Your task to perform on an android device: change the clock display to show seconds Image 0: 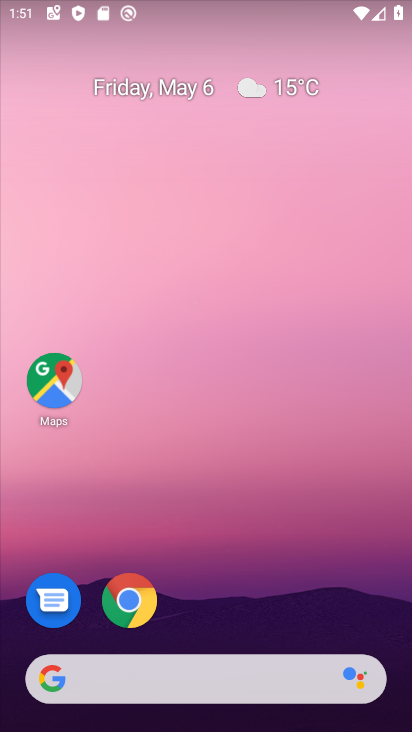
Step 0: drag from (342, 620) to (334, 149)
Your task to perform on an android device: change the clock display to show seconds Image 1: 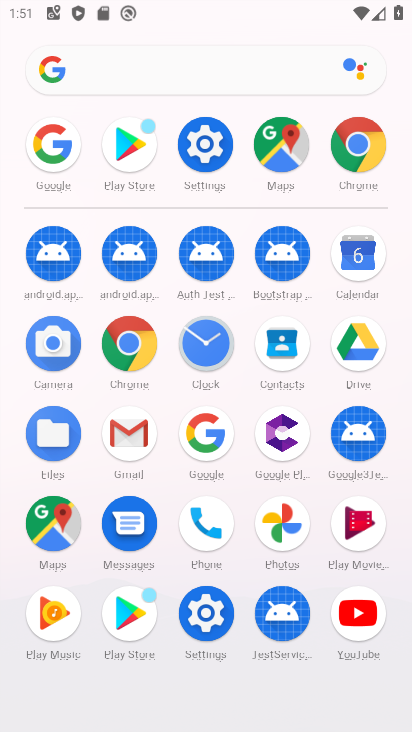
Step 1: click (220, 349)
Your task to perform on an android device: change the clock display to show seconds Image 2: 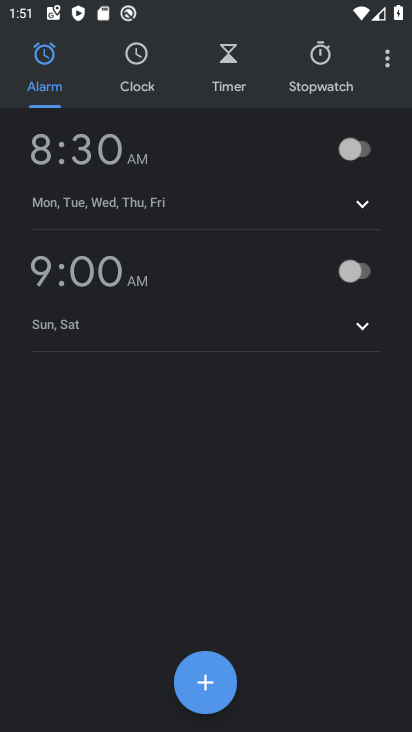
Step 2: click (390, 63)
Your task to perform on an android device: change the clock display to show seconds Image 3: 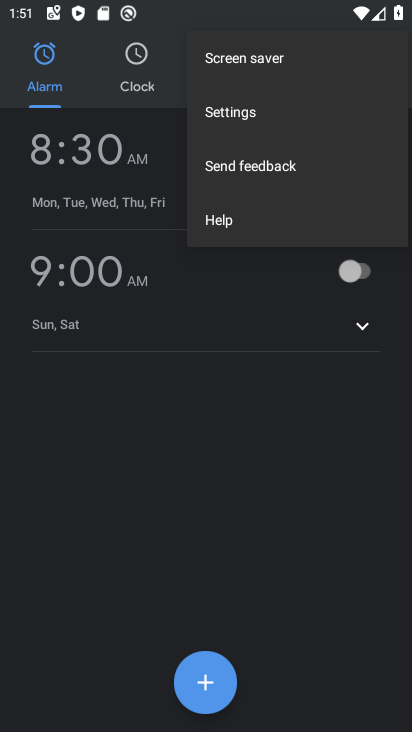
Step 3: click (288, 109)
Your task to perform on an android device: change the clock display to show seconds Image 4: 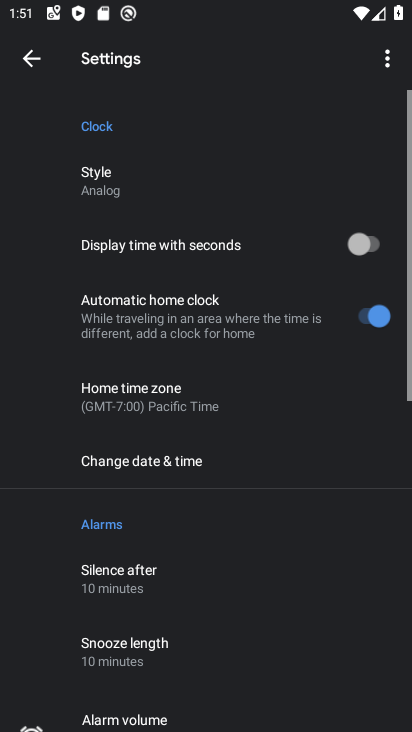
Step 4: click (352, 229)
Your task to perform on an android device: change the clock display to show seconds Image 5: 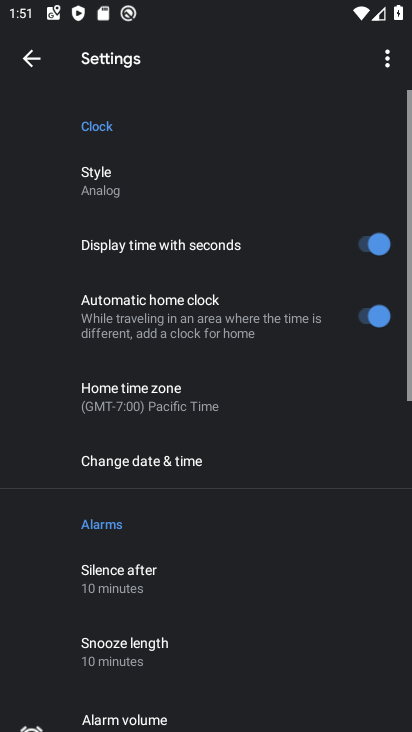
Step 5: task complete